Your task to perform on an android device: turn on airplane mode Image 0: 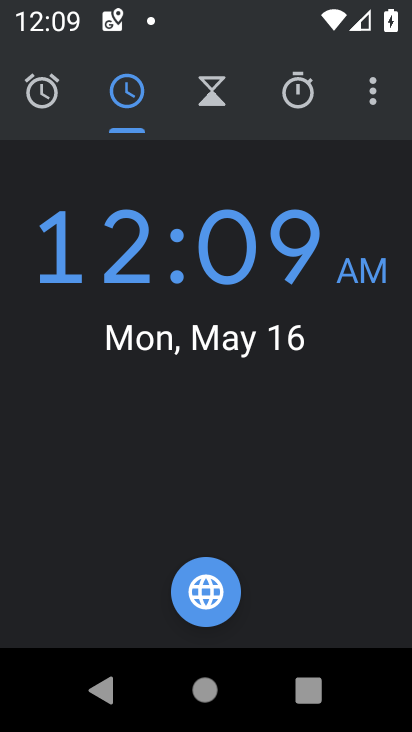
Step 0: press home button
Your task to perform on an android device: turn on airplane mode Image 1: 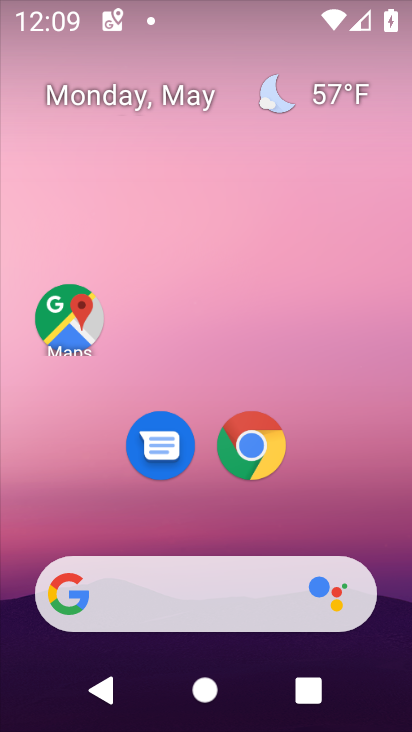
Step 1: drag from (340, 409) to (327, 111)
Your task to perform on an android device: turn on airplane mode Image 2: 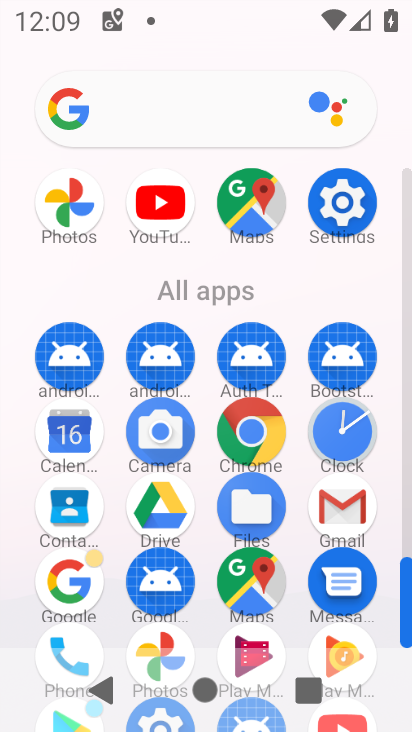
Step 2: click (326, 191)
Your task to perform on an android device: turn on airplane mode Image 3: 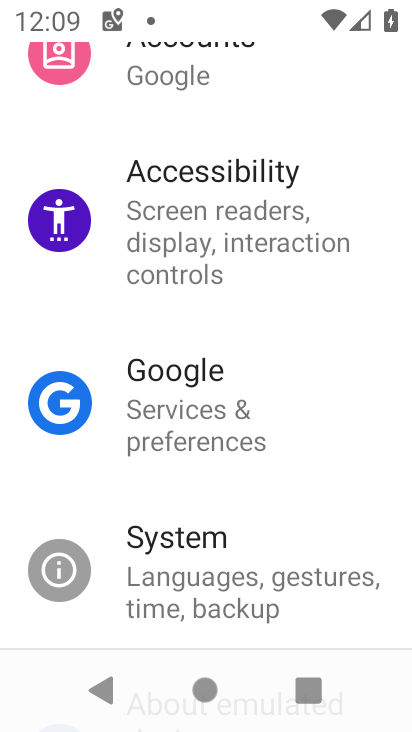
Step 3: drag from (271, 365) to (271, 532)
Your task to perform on an android device: turn on airplane mode Image 4: 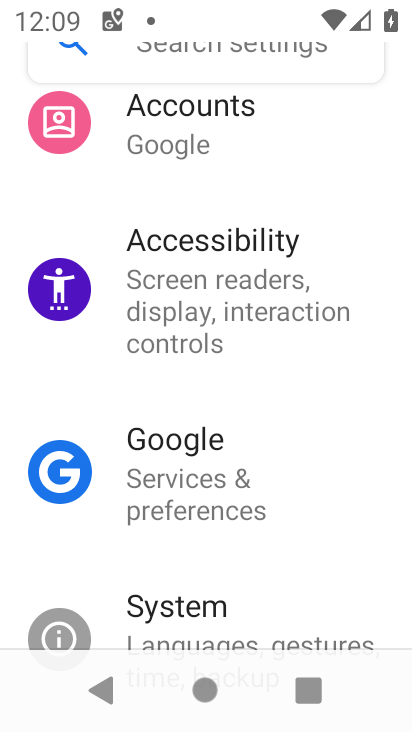
Step 4: drag from (285, 135) to (257, 560)
Your task to perform on an android device: turn on airplane mode Image 5: 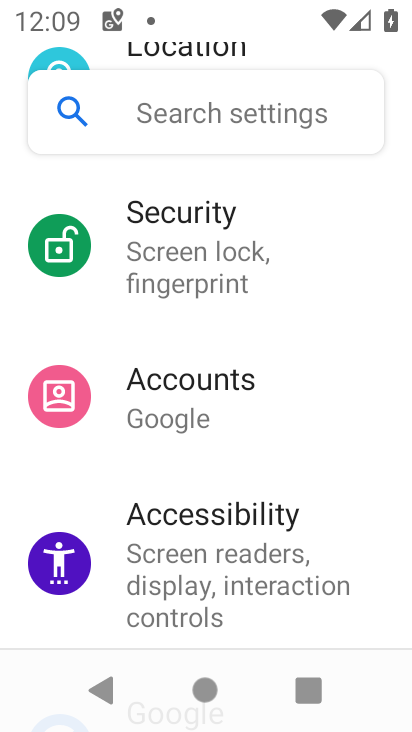
Step 5: drag from (309, 421) to (287, 579)
Your task to perform on an android device: turn on airplane mode Image 6: 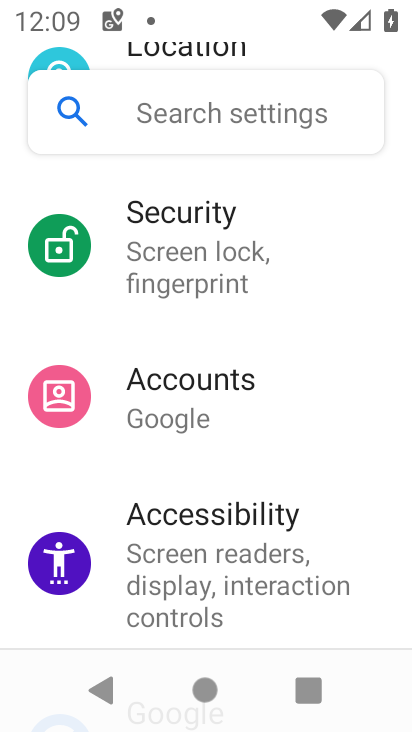
Step 6: drag from (279, 238) to (269, 498)
Your task to perform on an android device: turn on airplane mode Image 7: 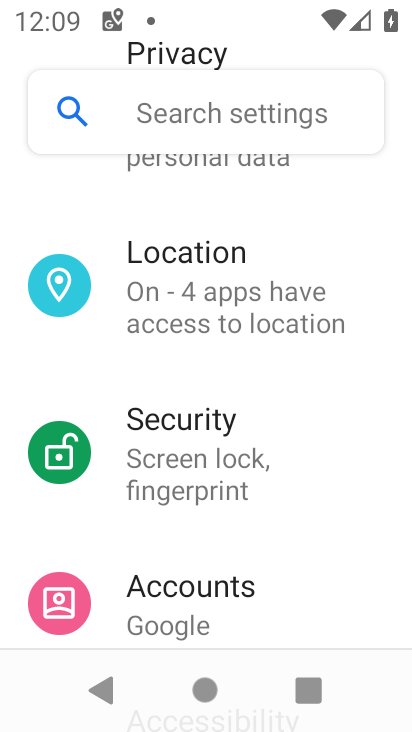
Step 7: click (341, 229)
Your task to perform on an android device: turn on airplane mode Image 8: 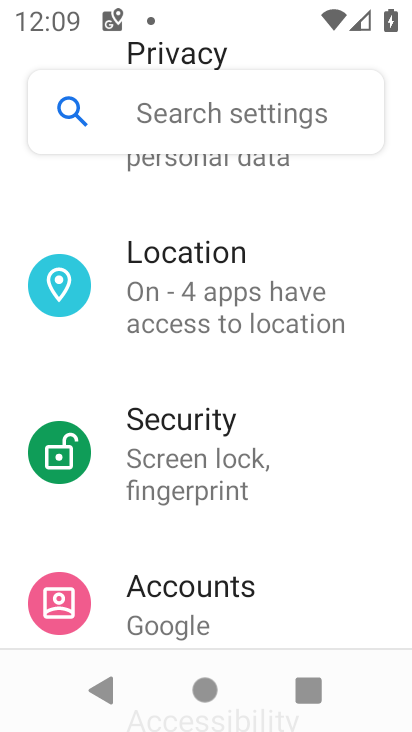
Step 8: drag from (333, 408) to (297, 658)
Your task to perform on an android device: turn on airplane mode Image 9: 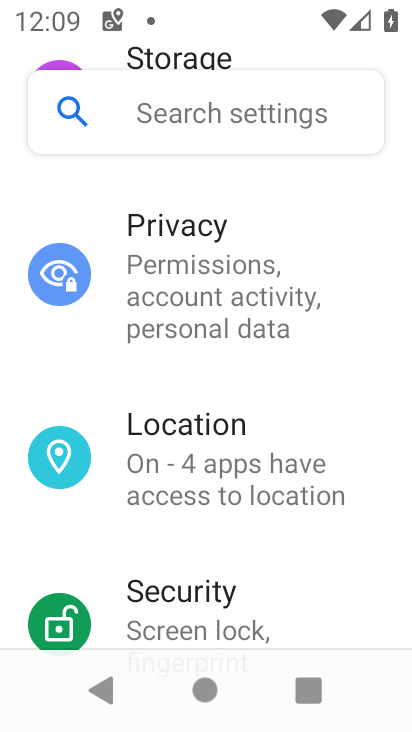
Step 9: drag from (307, 280) to (173, 306)
Your task to perform on an android device: turn on airplane mode Image 10: 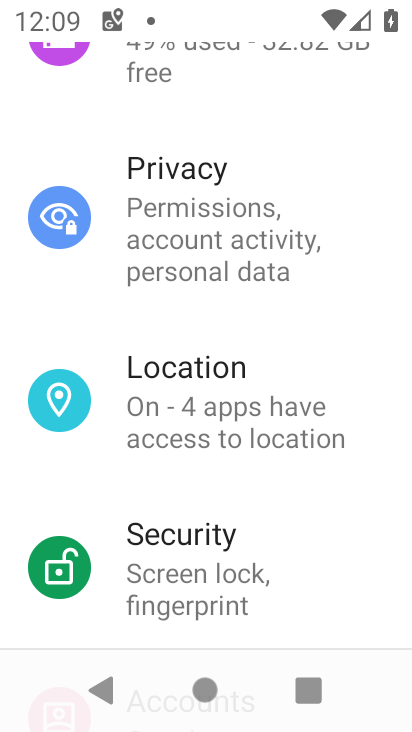
Step 10: drag from (293, 144) to (226, 418)
Your task to perform on an android device: turn on airplane mode Image 11: 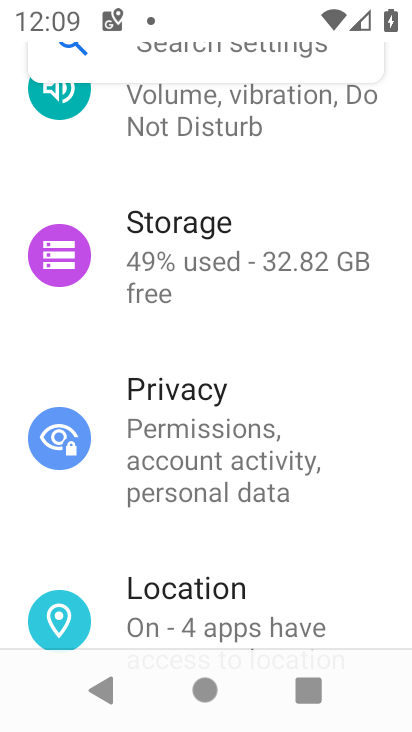
Step 11: drag from (286, 172) to (266, 450)
Your task to perform on an android device: turn on airplane mode Image 12: 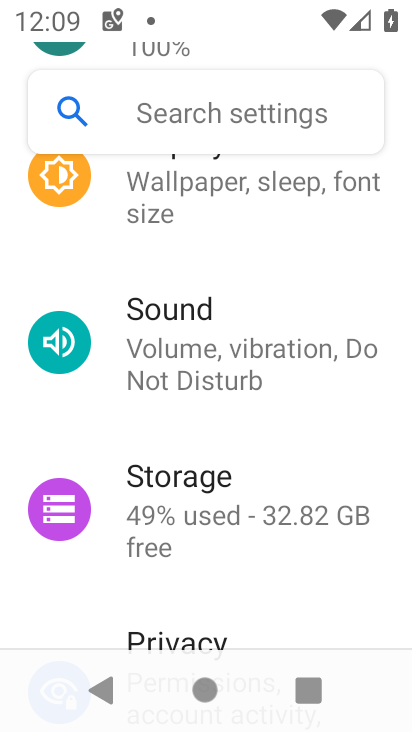
Step 12: click (266, 450)
Your task to perform on an android device: turn on airplane mode Image 13: 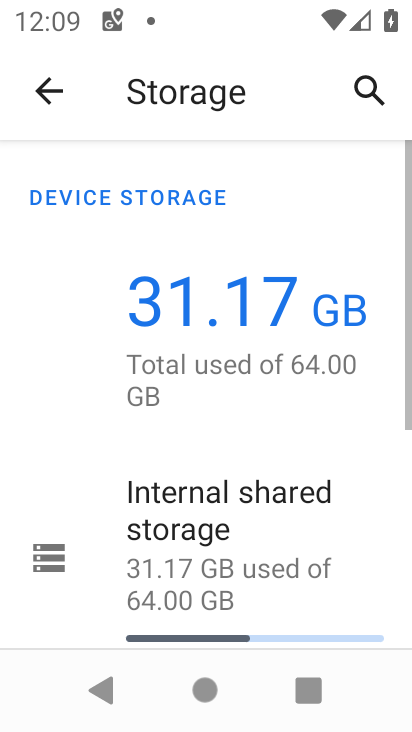
Step 13: drag from (275, 233) to (348, 428)
Your task to perform on an android device: turn on airplane mode Image 14: 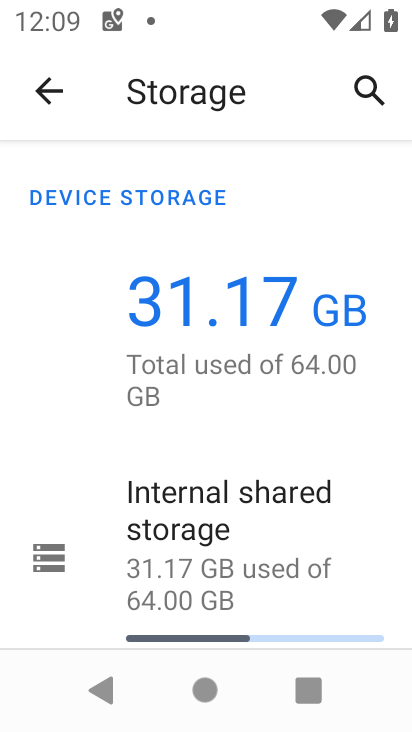
Step 14: press back button
Your task to perform on an android device: turn on airplane mode Image 15: 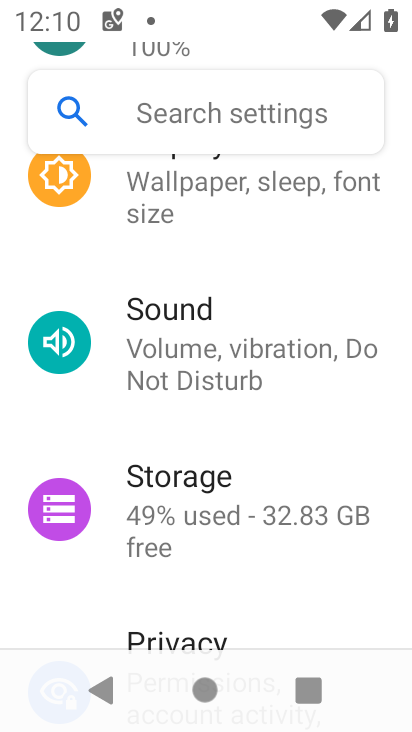
Step 15: drag from (237, 233) to (316, 505)
Your task to perform on an android device: turn on airplane mode Image 16: 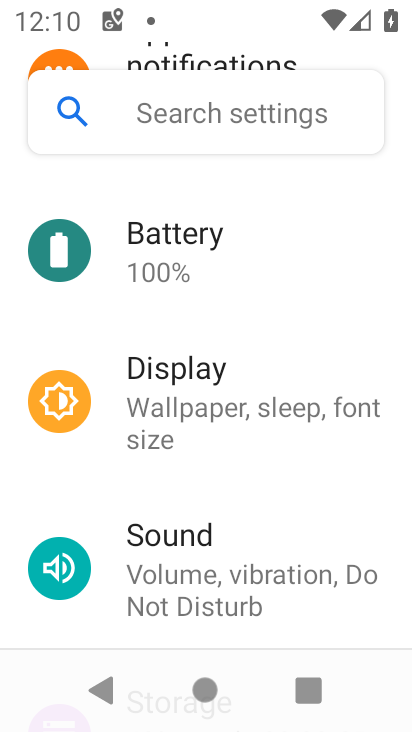
Step 16: drag from (229, 255) to (281, 506)
Your task to perform on an android device: turn on airplane mode Image 17: 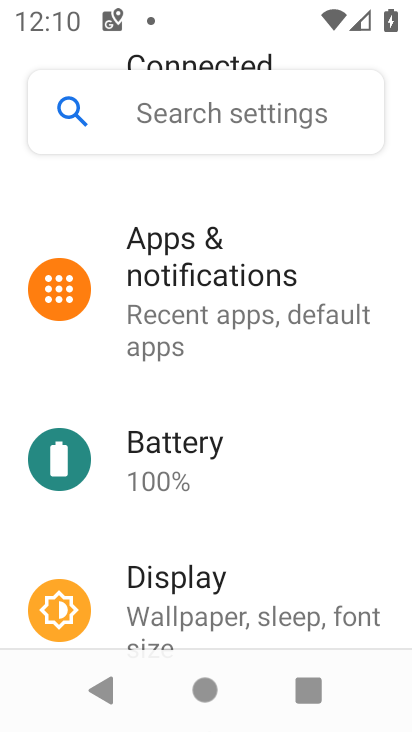
Step 17: drag from (229, 279) to (260, 513)
Your task to perform on an android device: turn on airplane mode Image 18: 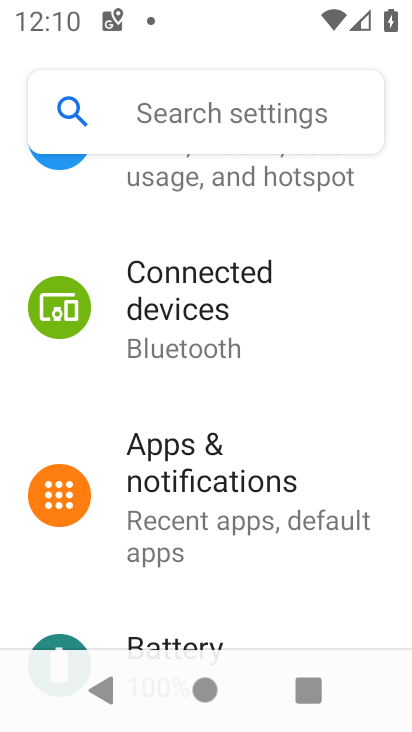
Step 18: drag from (304, 234) to (309, 520)
Your task to perform on an android device: turn on airplane mode Image 19: 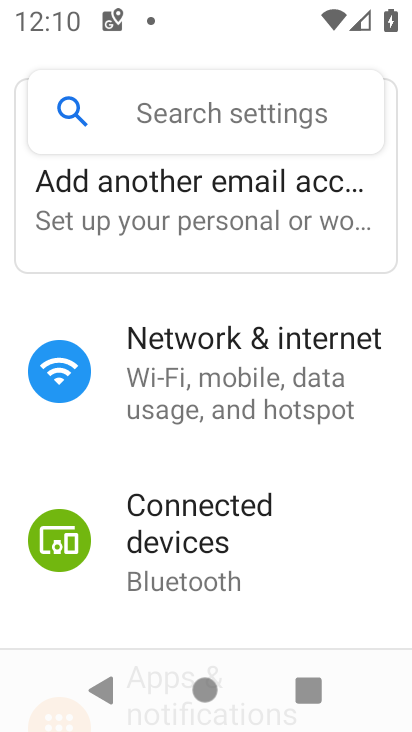
Step 19: click (255, 354)
Your task to perform on an android device: turn on airplane mode Image 20: 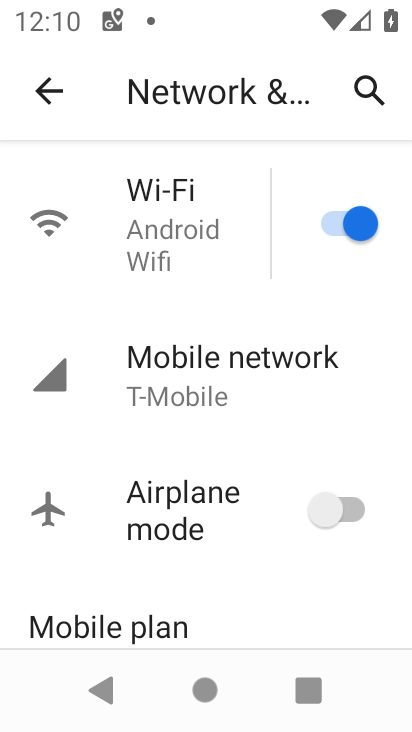
Step 20: click (325, 514)
Your task to perform on an android device: turn on airplane mode Image 21: 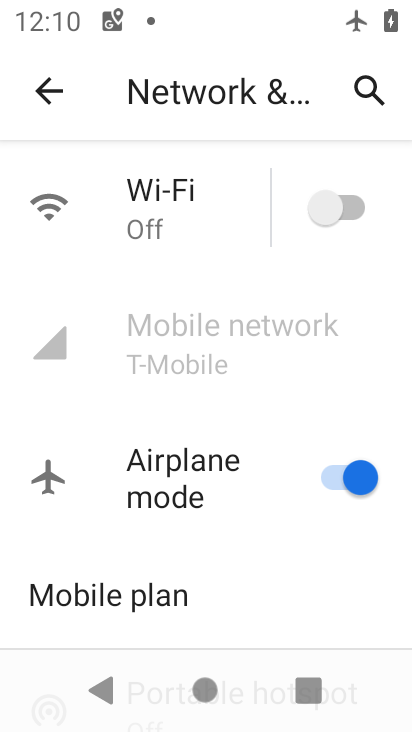
Step 21: task complete